Your task to perform on an android device: toggle notifications settings in the gmail app Image 0: 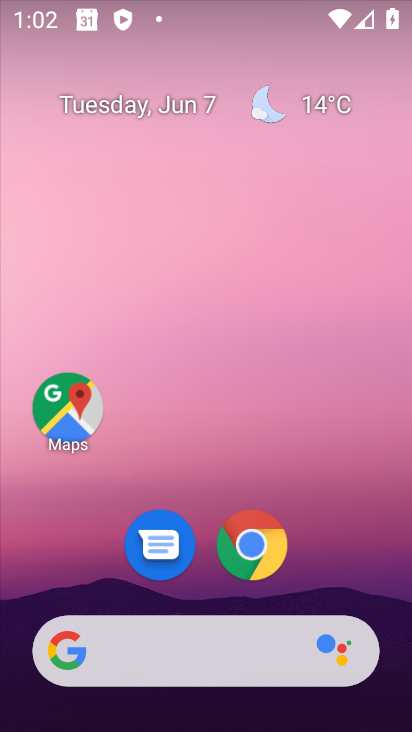
Step 0: press home button
Your task to perform on an android device: toggle notifications settings in the gmail app Image 1: 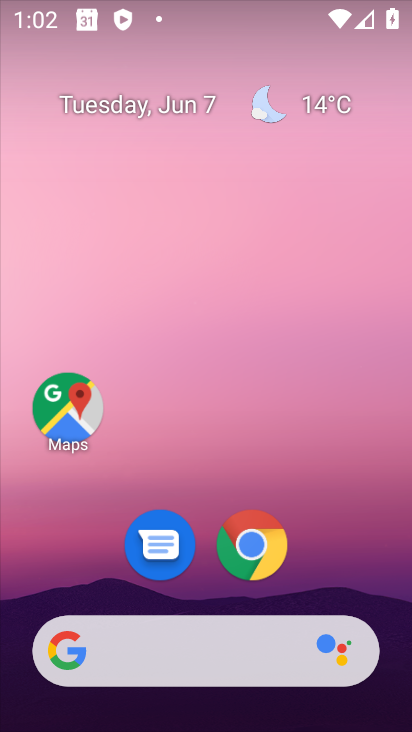
Step 1: drag from (372, 558) to (361, 61)
Your task to perform on an android device: toggle notifications settings in the gmail app Image 2: 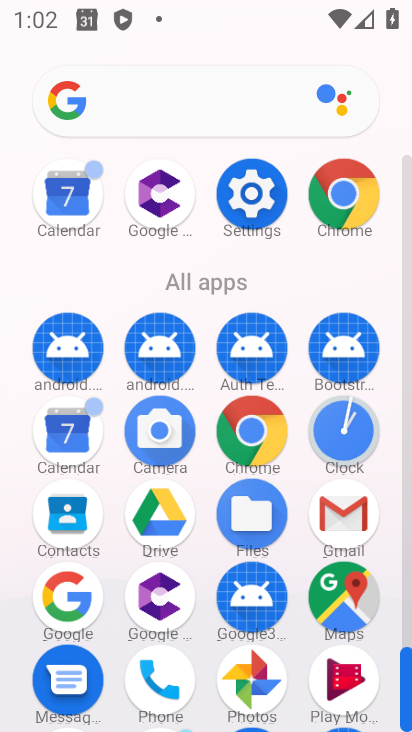
Step 2: click (347, 509)
Your task to perform on an android device: toggle notifications settings in the gmail app Image 3: 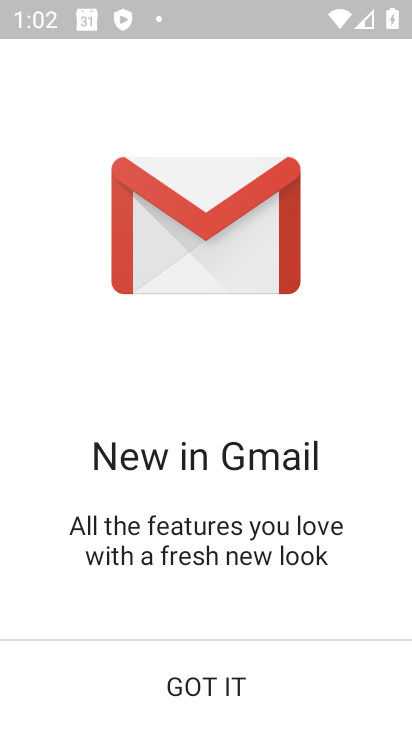
Step 3: click (238, 725)
Your task to perform on an android device: toggle notifications settings in the gmail app Image 4: 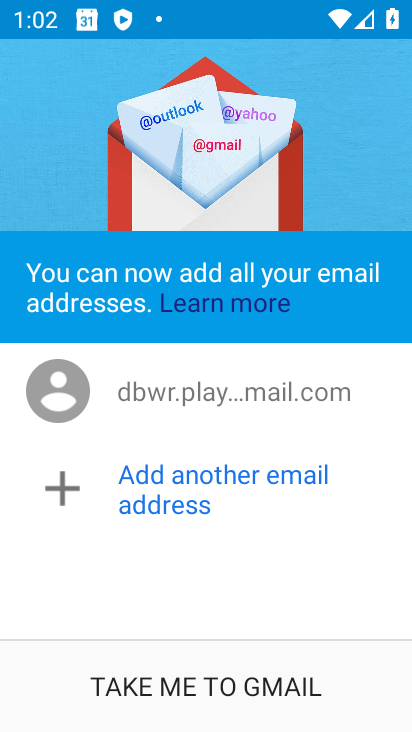
Step 4: click (239, 712)
Your task to perform on an android device: toggle notifications settings in the gmail app Image 5: 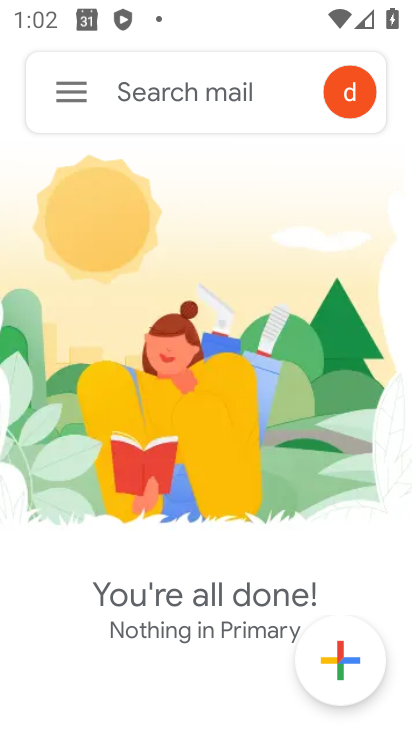
Step 5: drag from (75, 91) to (93, 597)
Your task to perform on an android device: toggle notifications settings in the gmail app Image 6: 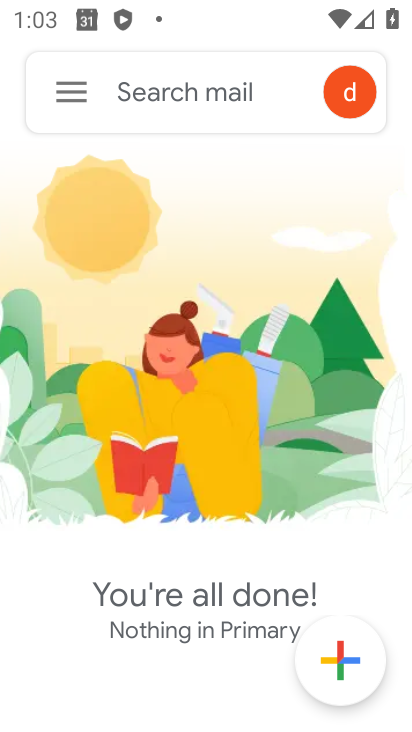
Step 6: click (72, 108)
Your task to perform on an android device: toggle notifications settings in the gmail app Image 7: 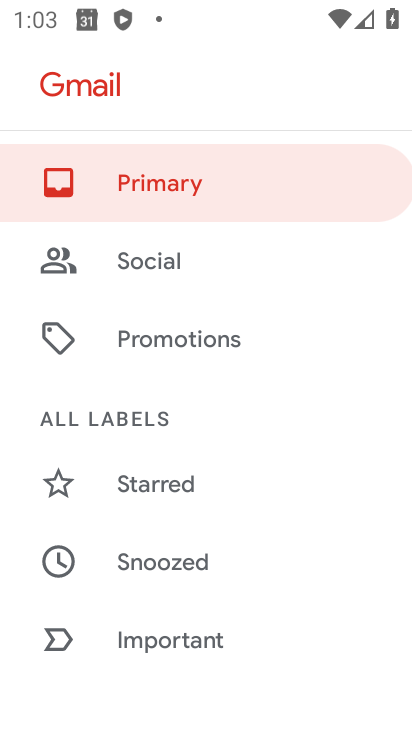
Step 7: drag from (132, 627) to (178, 262)
Your task to perform on an android device: toggle notifications settings in the gmail app Image 8: 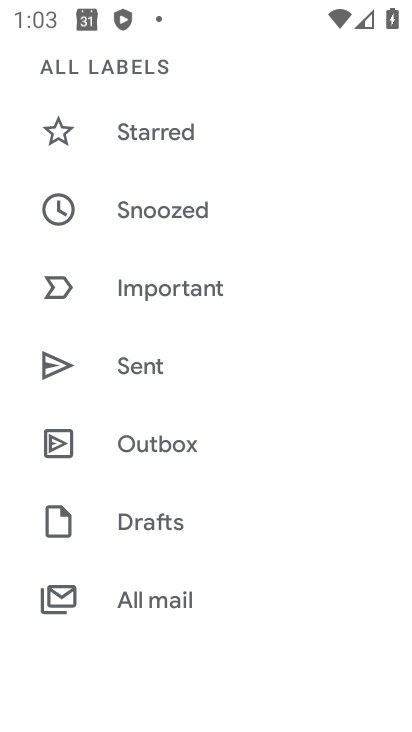
Step 8: drag from (180, 675) to (251, 375)
Your task to perform on an android device: toggle notifications settings in the gmail app Image 9: 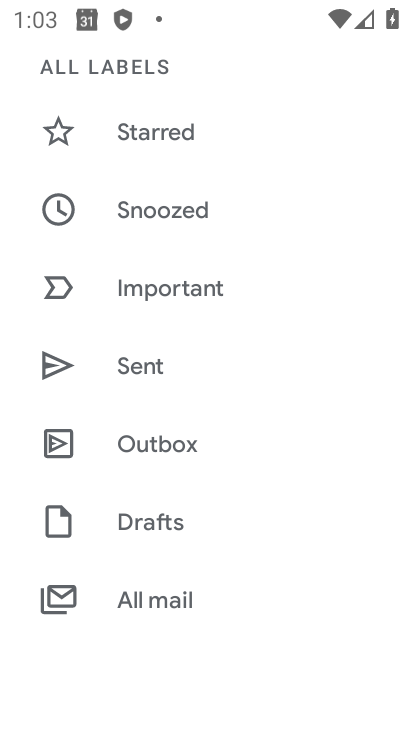
Step 9: drag from (141, 641) to (226, 187)
Your task to perform on an android device: toggle notifications settings in the gmail app Image 10: 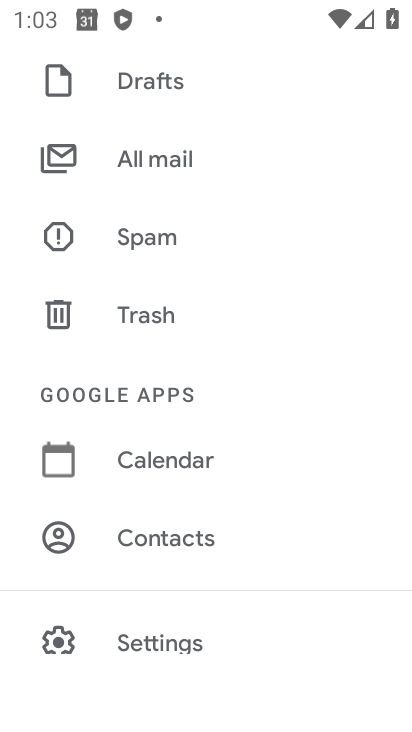
Step 10: drag from (112, 527) to (229, 119)
Your task to perform on an android device: toggle notifications settings in the gmail app Image 11: 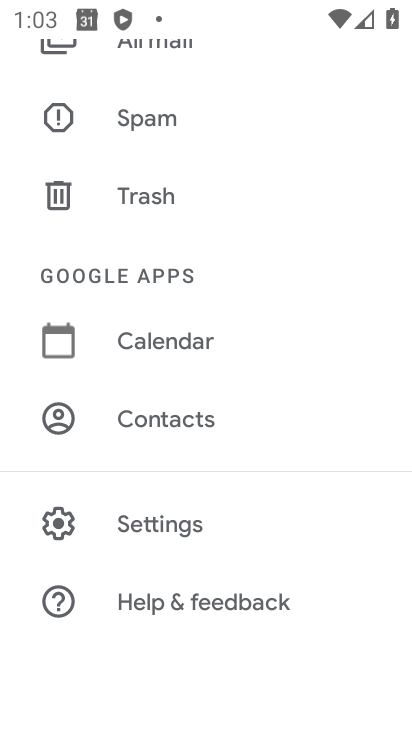
Step 11: click (138, 506)
Your task to perform on an android device: toggle notifications settings in the gmail app Image 12: 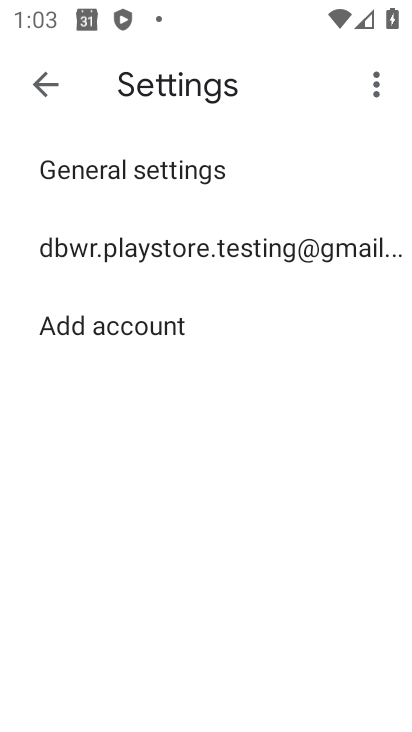
Step 12: click (137, 250)
Your task to perform on an android device: toggle notifications settings in the gmail app Image 13: 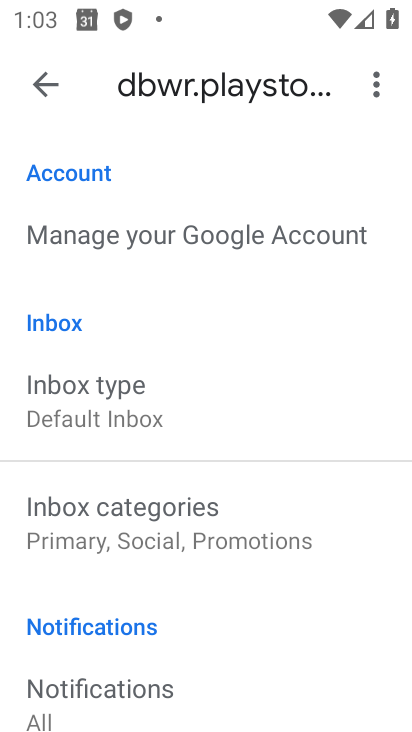
Step 13: drag from (194, 605) to (224, 341)
Your task to perform on an android device: toggle notifications settings in the gmail app Image 14: 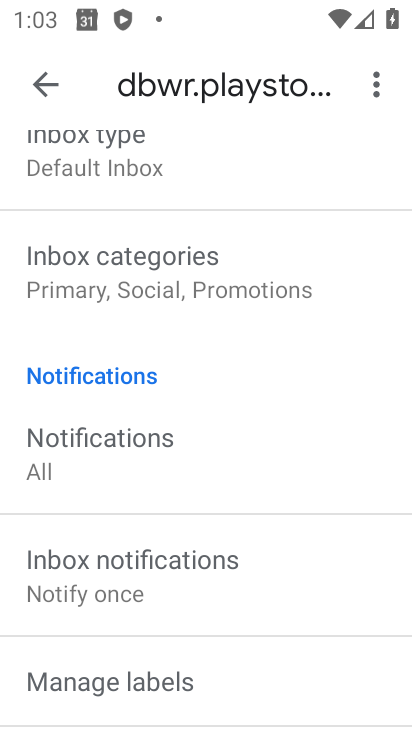
Step 14: click (152, 424)
Your task to perform on an android device: toggle notifications settings in the gmail app Image 15: 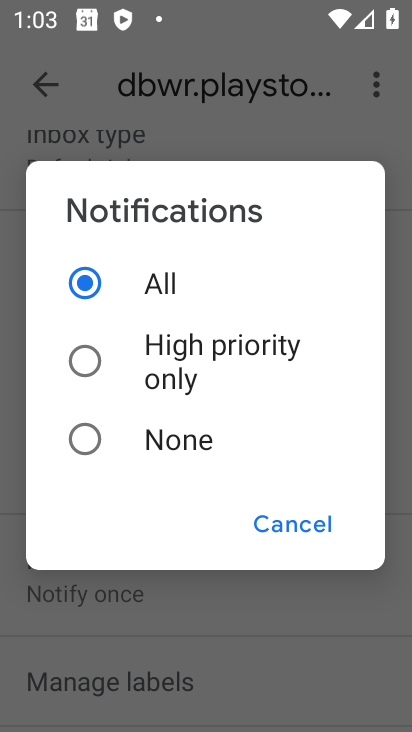
Step 15: click (87, 432)
Your task to perform on an android device: toggle notifications settings in the gmail app Image 16: 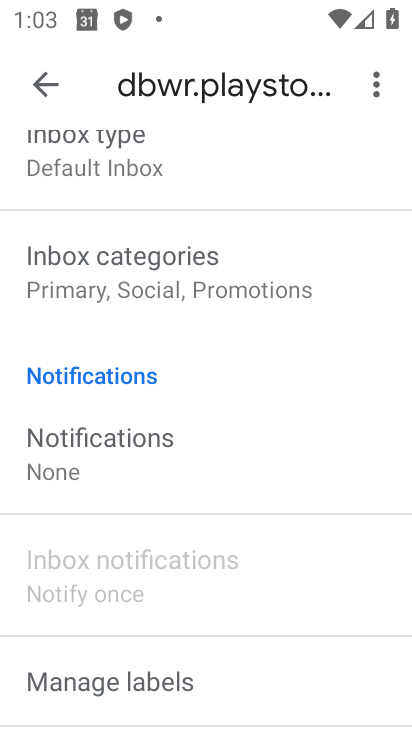
Step 16: task complete